Your task to perform on an android device: toggle notifications settings in the gmail app Image 0: 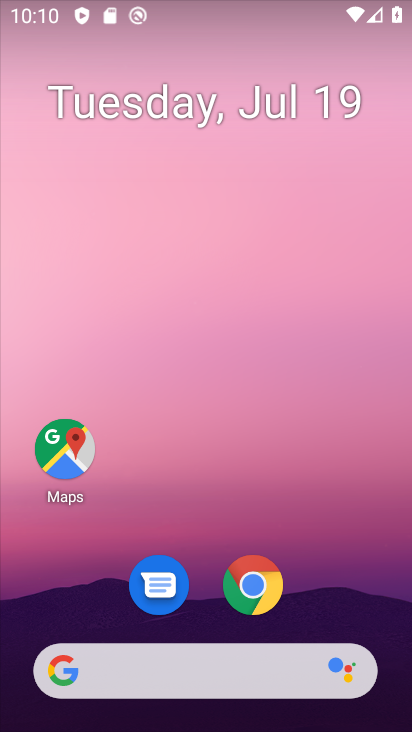
Step 0: drag from (314, 560) to (312, 19)
Your task to perform on an android device: toggle notifications settings in the gmail app Image 1: 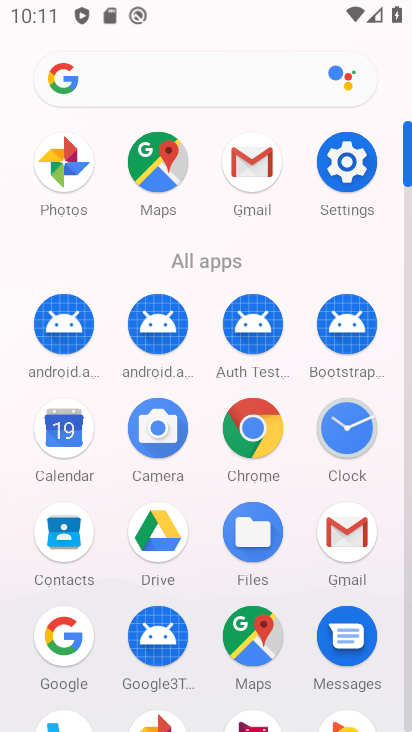
Step 1: click (258, 164)
Your task to perform on an android device: toggle notifications settings in the gmail app Image 2: 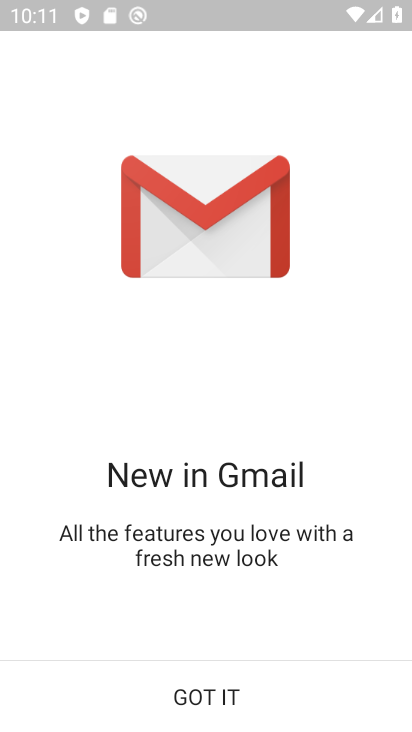
Step 2: click (188, 692)
Your task to perform on an android device: toggle notifications settings in the gmail app Image 3: 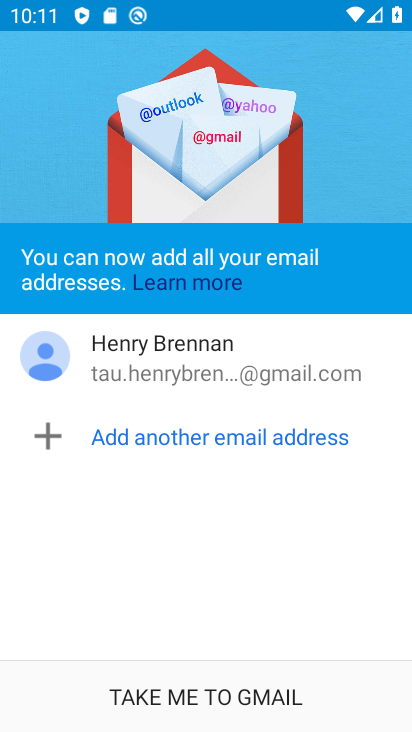
Step 3: click (188, 692)
Your task to perform on an android device: toggle notifications settings in the gmail app Image 4: 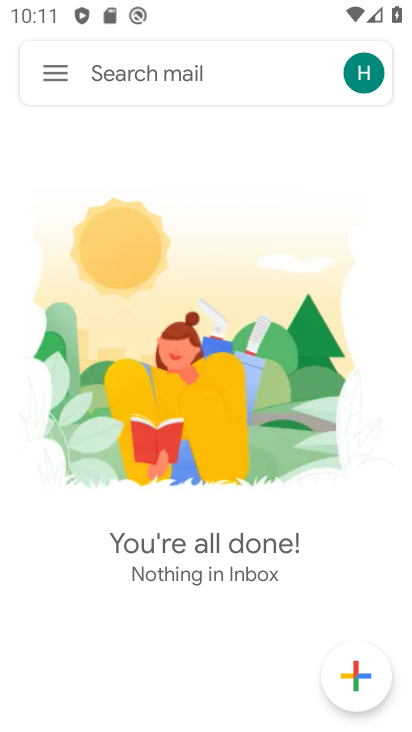
Step 4: click (53, 71)
Your task to perform on an android device: toggle notifications settings in the gmail app Image 5: 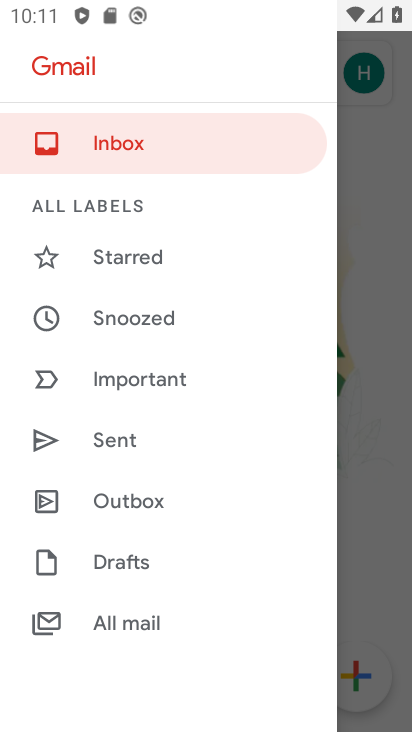
Step 5: drag from (167, 588) to (184, 251)
Your task to perform on an android device: toggle notifications settings in the gmail app Image 6: 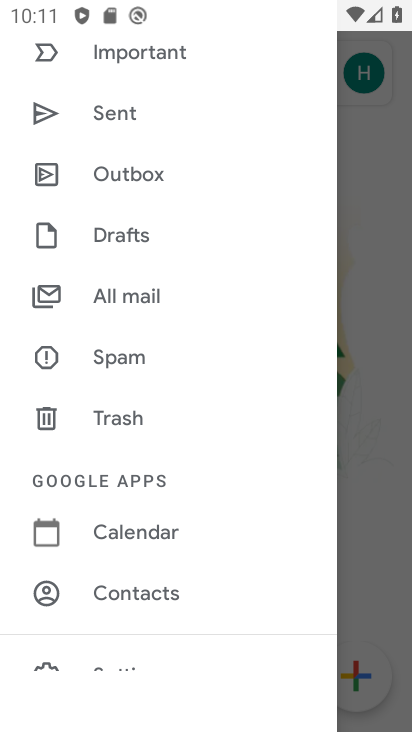
Step 6: drag from (189, 435) to (202, 241)
Your task to perform on an android device: toggle notifications settings in the gmail app Image 7: 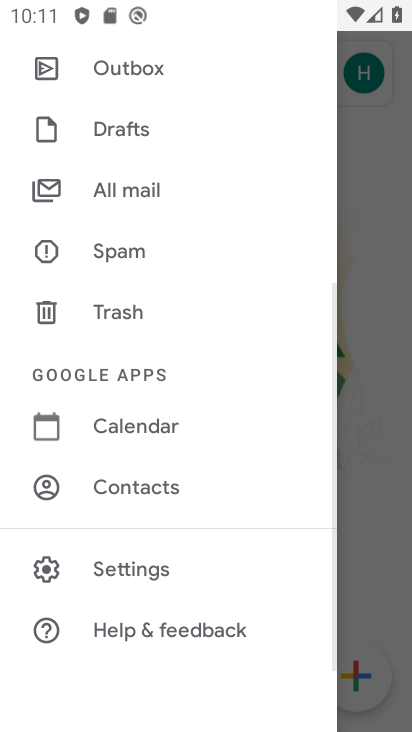
Step 7: click (142, 570)
Your task to perform on an android device: toggle notifications settings in the gmail app Image 8: 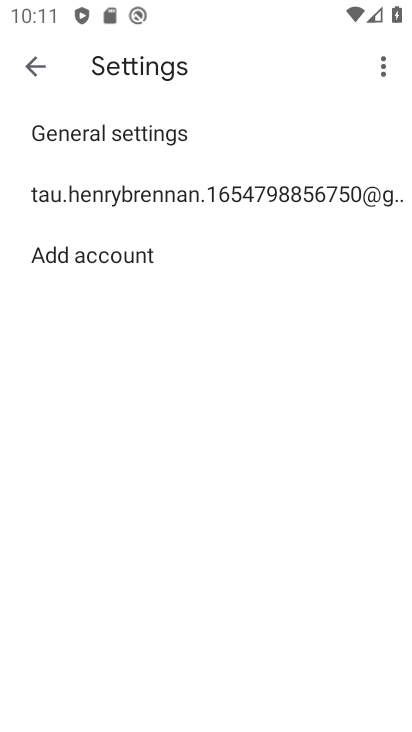
Step 8: click (293, 191)
Your task to perform on an android device: toggle notifications settings in the gmail app Image 9: 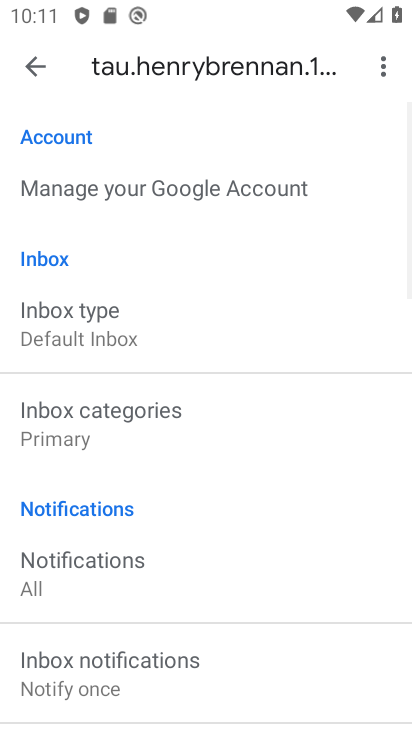
Step 9: drag from (201, 493) to (222, 177)
Your task to perform on an android device: toggle notifications settings in the gmail app Image 10: 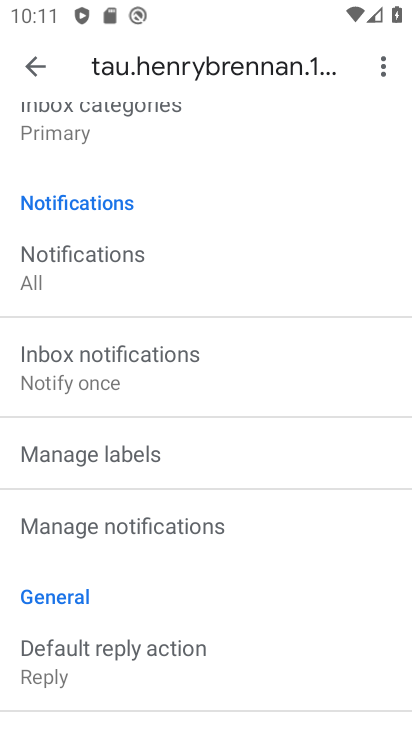
Step 10: click (170, 519)
Your task to perform on an android device: toggle notifications settings in the gmail app Image 11: 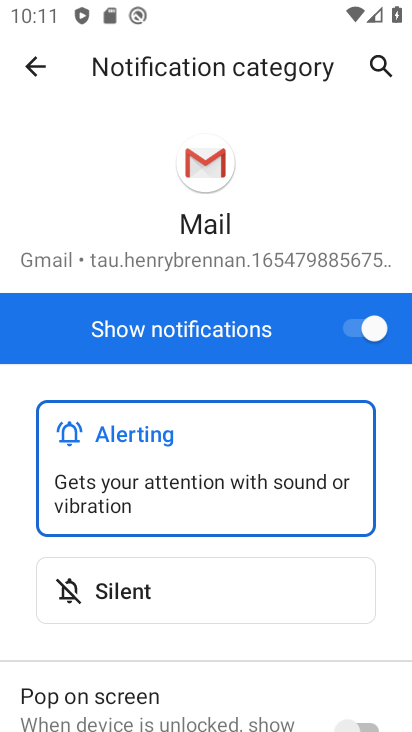
Step 11: click (360, 328)
Your task to perform on an android device: toggle notifications settings in the gmail app Image 12: 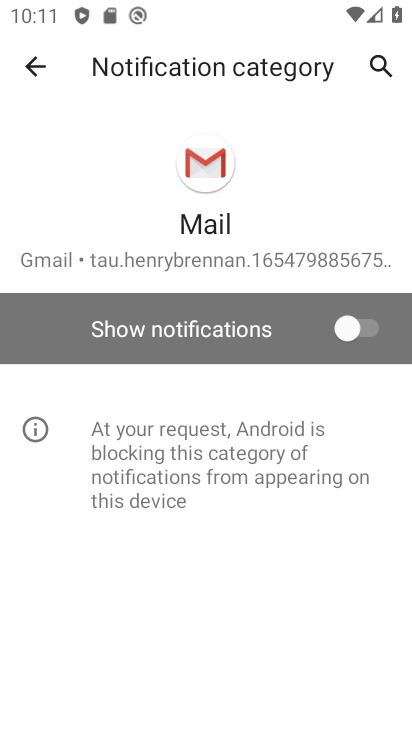
Step 12: task complete